Your task to perform on an android device: open device folders in google photos Image 0: 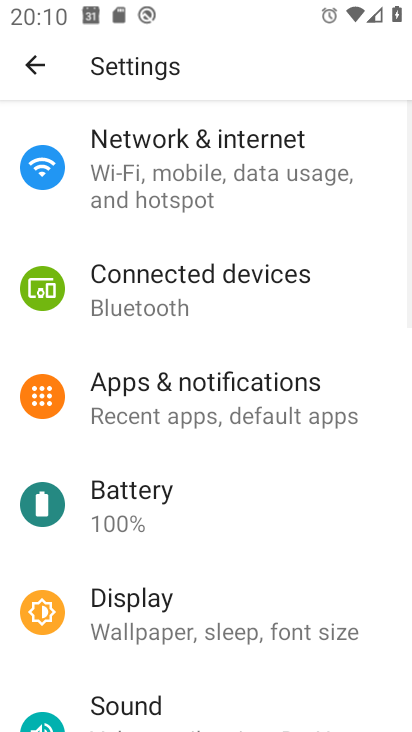
Step 0: press home button
Your task to perform on an android device: open device folders in google photos Image 1: 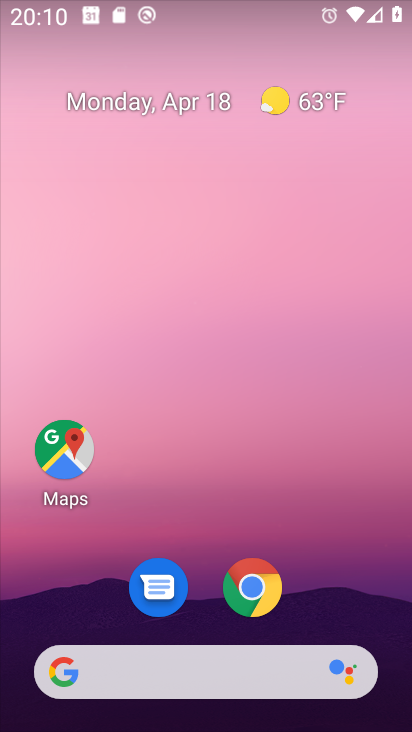
Step 1: drag from (340, 602) to (273, 37)
Your task to perform on an android device: open device folders in google photos Image 2: 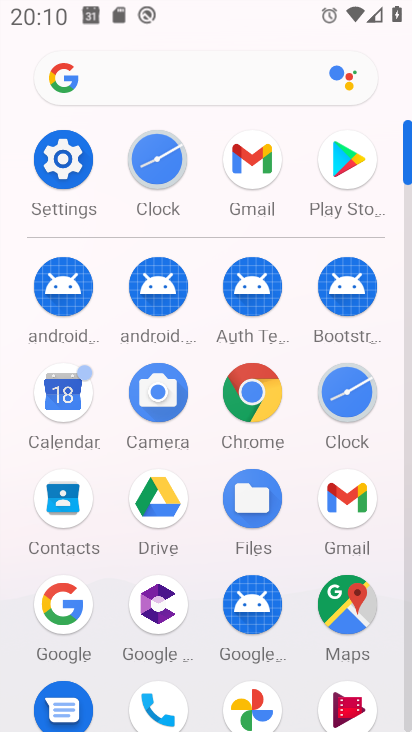
Step 2: click (252, 717)
Your task to perform on an android device: open device folders in google photos Image 3: 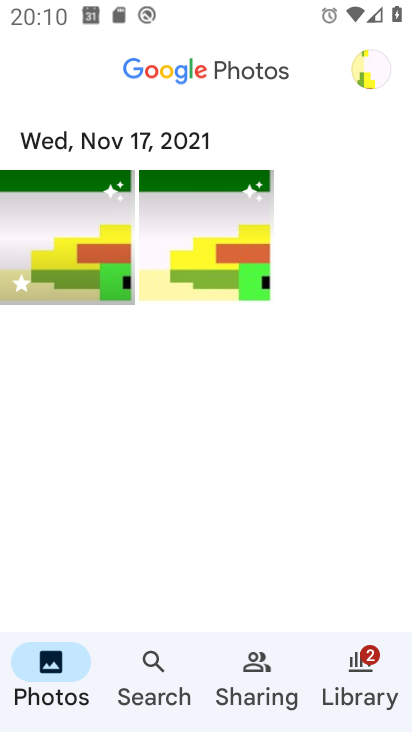
Step 3: click (362, 78)
Your task to perform on an android device: open device folders in google photos Image 4: 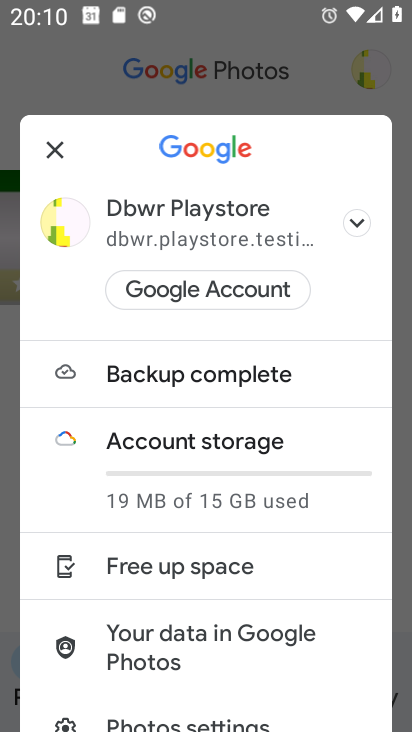
Step 4: click (46, 157)
Your task to perform on an android device: open device folders in google photos Image 5: 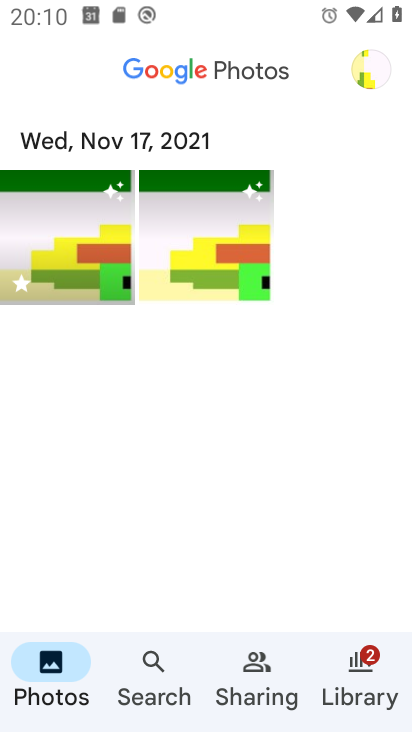
Step 5: task complete